Your task to perform on an android device: Find coffee shops on Maps Image 0: 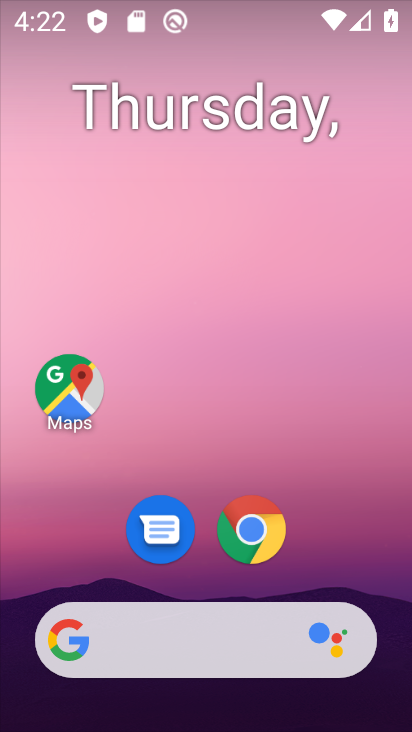
Step 0: drag from (187, 725) to (290, 62)
Your task to perform on an android device: Find coffee shops on Maps Image 1: 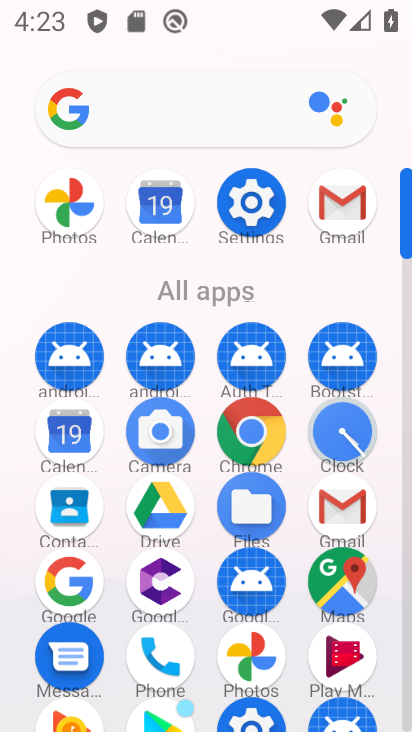
Step 1: click (338, 577)
Your task to perform on an android device: Find coffee shops on Maps Image 2: 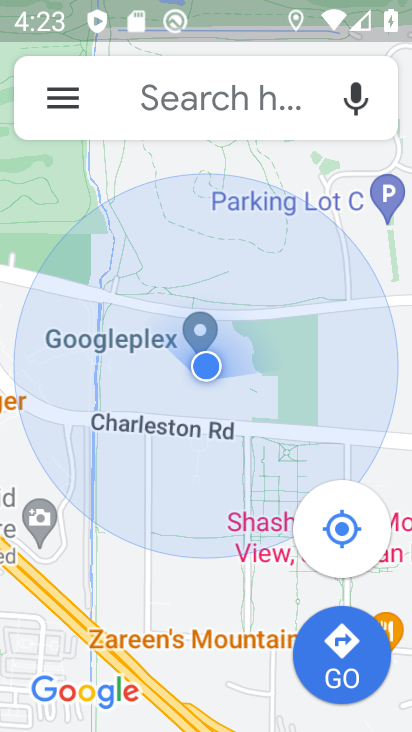
Step 2: click (172, 104)
Your task to perform on an android device: Find coffee shops on Maps Image 3: 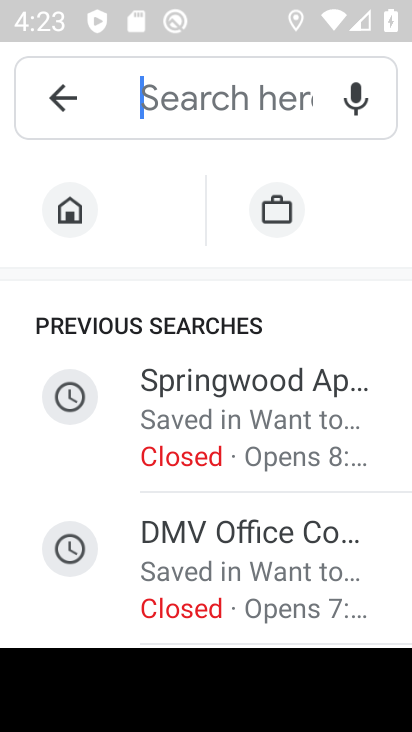
Step 3: type "coffee shops"
Your task to perform on an android device: Find coffee shops on Maps Image 4: 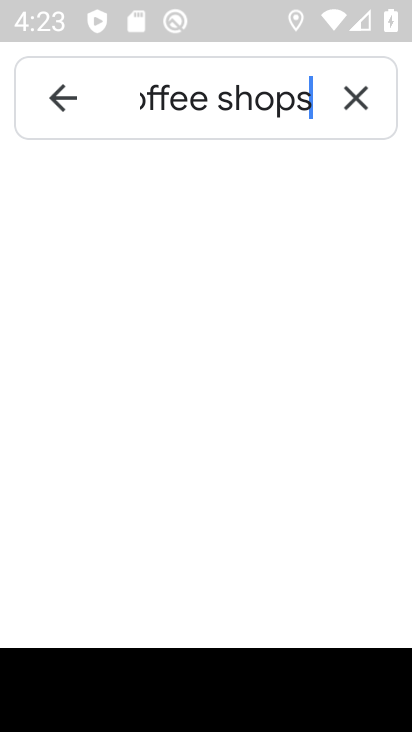
Step 4: type ""
Your task to perform on an android device: Find coffee shops on Maps Image 5: 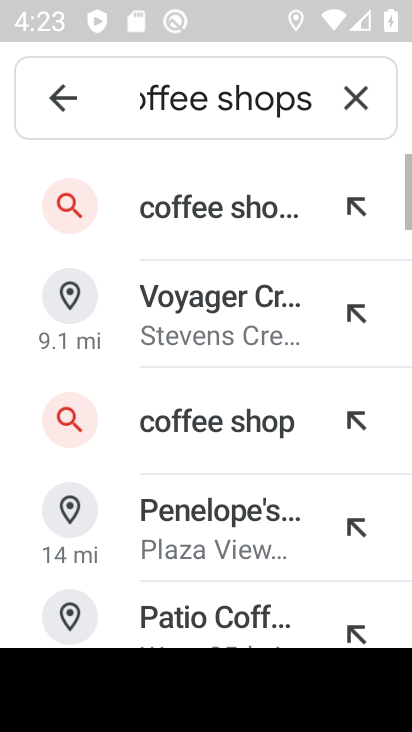
Step 5: click (182, 212)
Your task to perform on an android device: Find coffee shops on Maps Image 6: 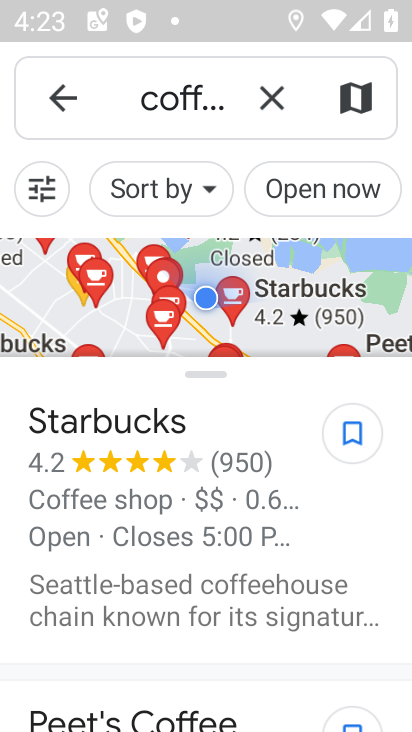
Step 6: task complete